Your task to perform on an android device: change the upload size in google photos Image 0: 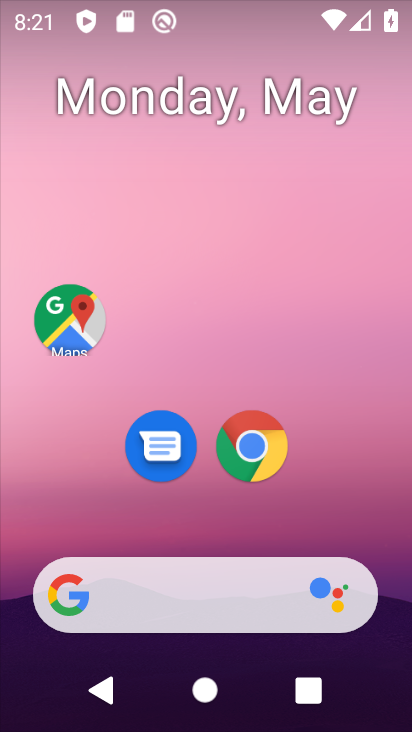
Step 0: press home button
Your task to perform on an android device: change the upload size in google photos Image 1: 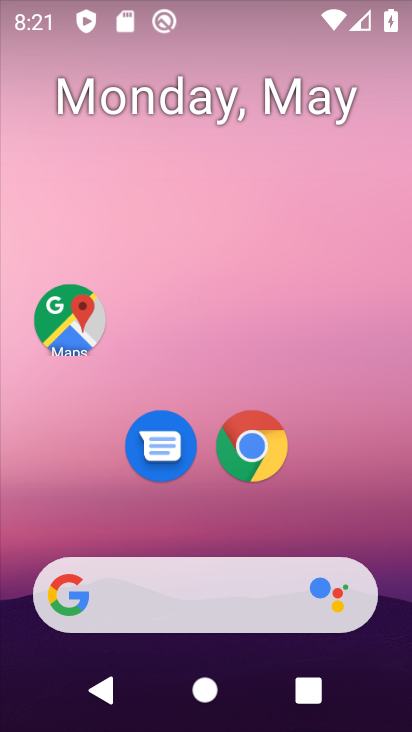
Step 1: drag from (208, 528) to (254, 39)
Your task to perform on an android device: change the upload size in google photos Image 2: 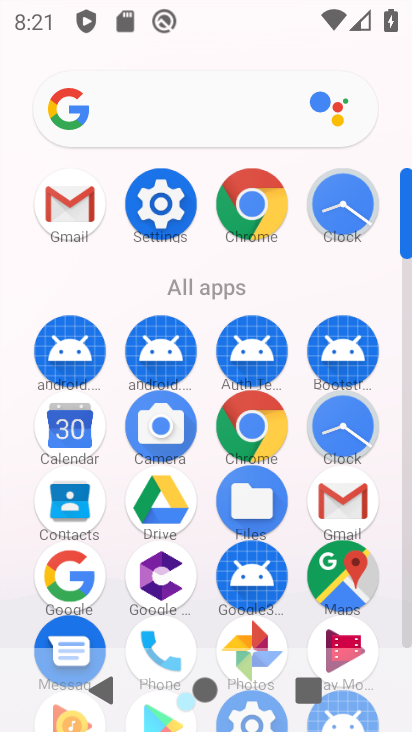
Step 2: click (249, 630)
Your task to perform on an android device: change the upload size in google photos Image 3: 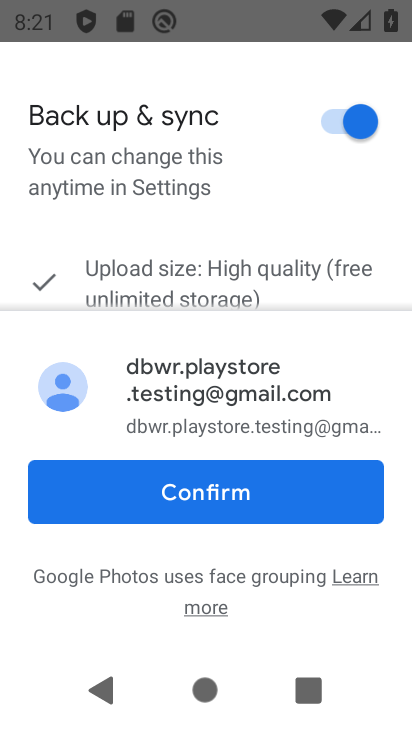
Step 3: click (204, 486)
Your task to perform on an android device: change the upload size in google photos Image 4: 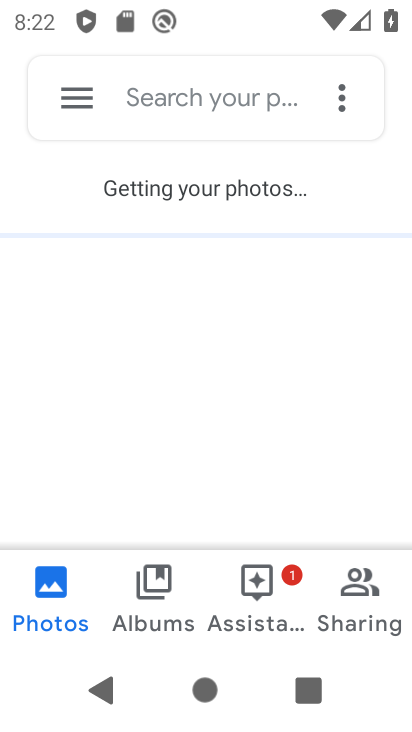
Step 4: click (69, 95)
Your task to perform on an android device: change the upload size in google photos Image 5: 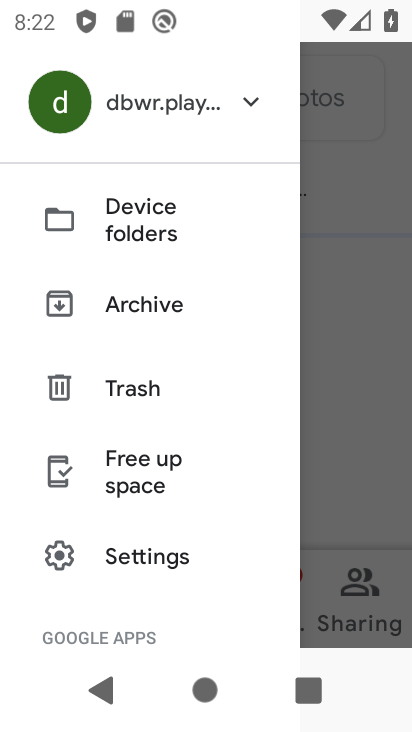
Step 5: click (84, 555)
Your task to perform on an android device: change the upload size in google photos Image 6: 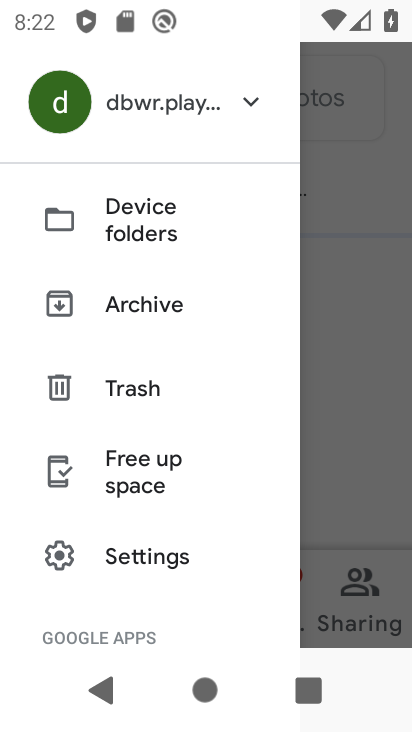
Step 6: click (98, 545)
Your task to perform on an android device: change the upload size in google photos Image 7: 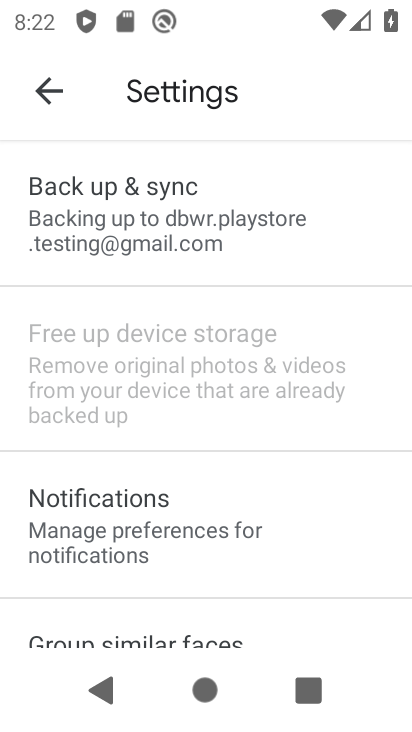
Step 7: click (190, 197)
Your task to perform on an android device: change the upload size in google photos Image 8: 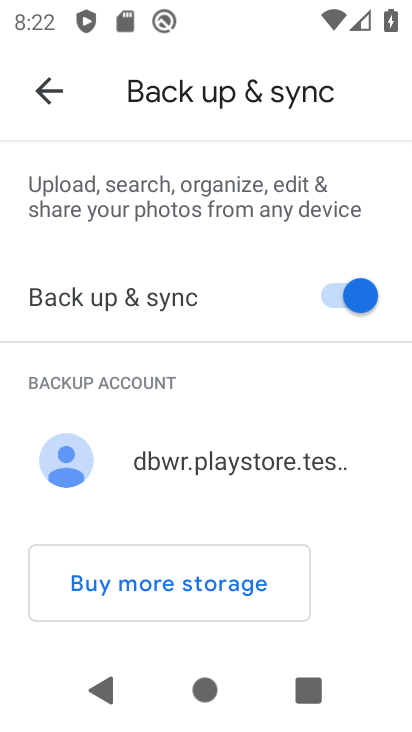
Step 8: drag from (206, 526) to (183, 143)
Your task to perform on an android device: change the upload size in google photos Image 9: 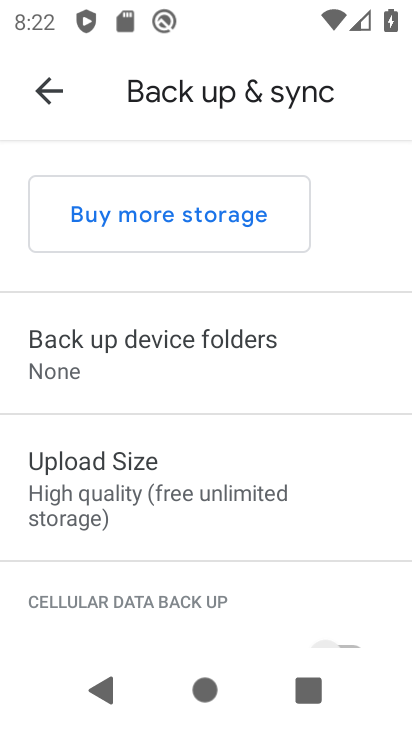
Step 9: click (160, 474)
Your task to perform on an android device: change the upload size in google photos Image 10: 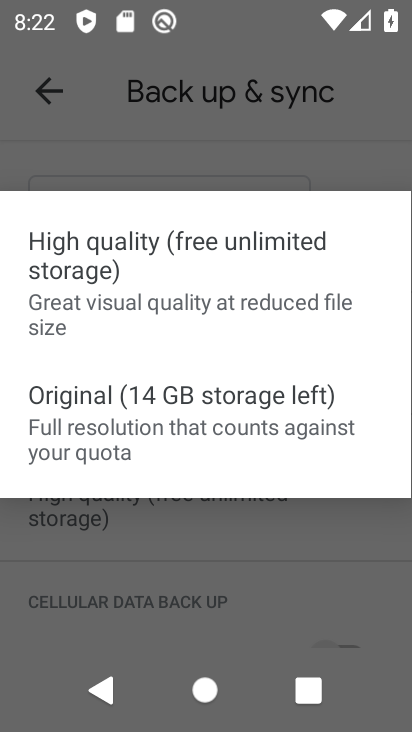
Step 10: click (160, 421)
Your task to perform on an android device: change the upload size in google photos Image 11: 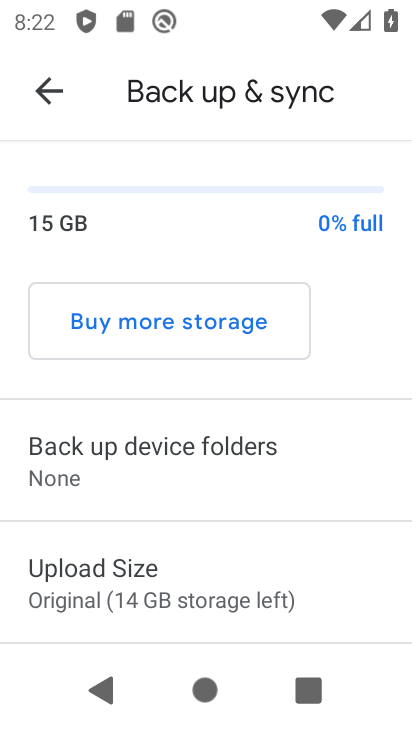
Step 11: task complete